Your task to perform on an android device: Open Google Chrome and click the shortcut for Amazon.com Image 0: 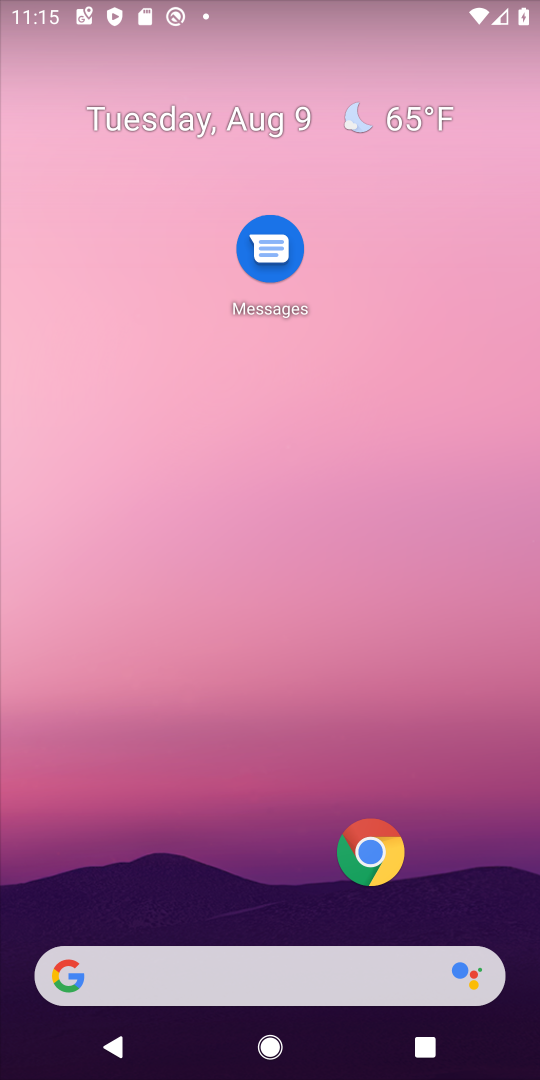
Step 0: click (387, 871)
Your task to perform on an android device: Open Google Chrome and click the shortcut for Amazon.com Image 1: 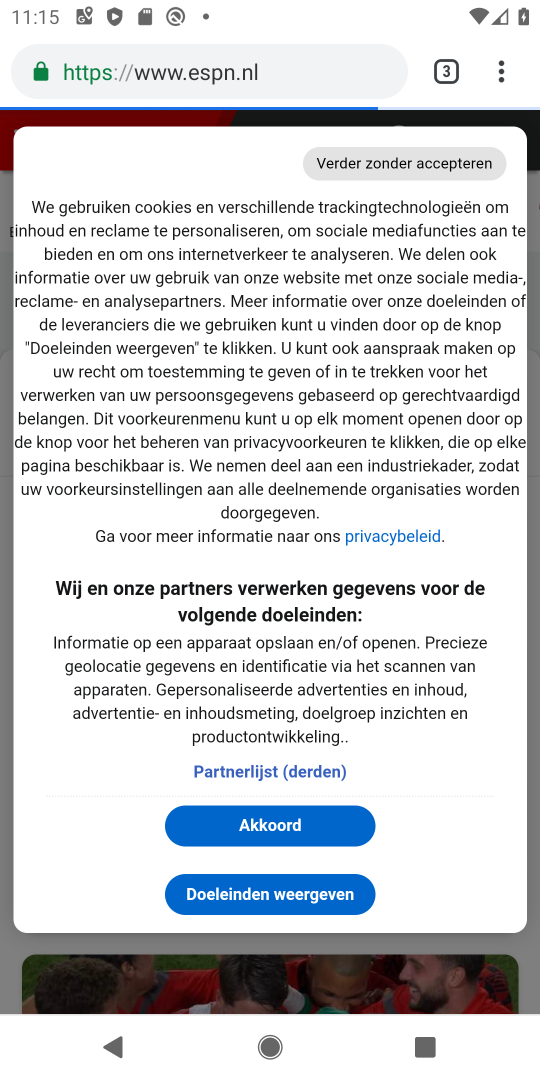
Step 1: click (442, 74)
Your task to perform on an android device: Open Google Chrome and click the shortcut for Amazon.com Image 2: 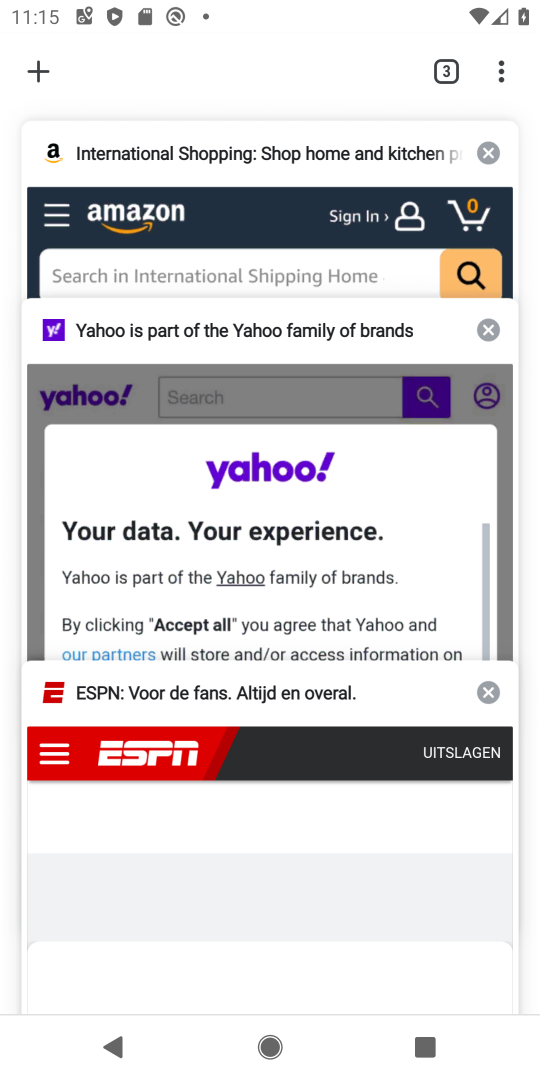
Step 2: click (53, 71)
Your task to perform on an android device: Open Google Chrome and click the shortcut for Amazon.com Image 3: 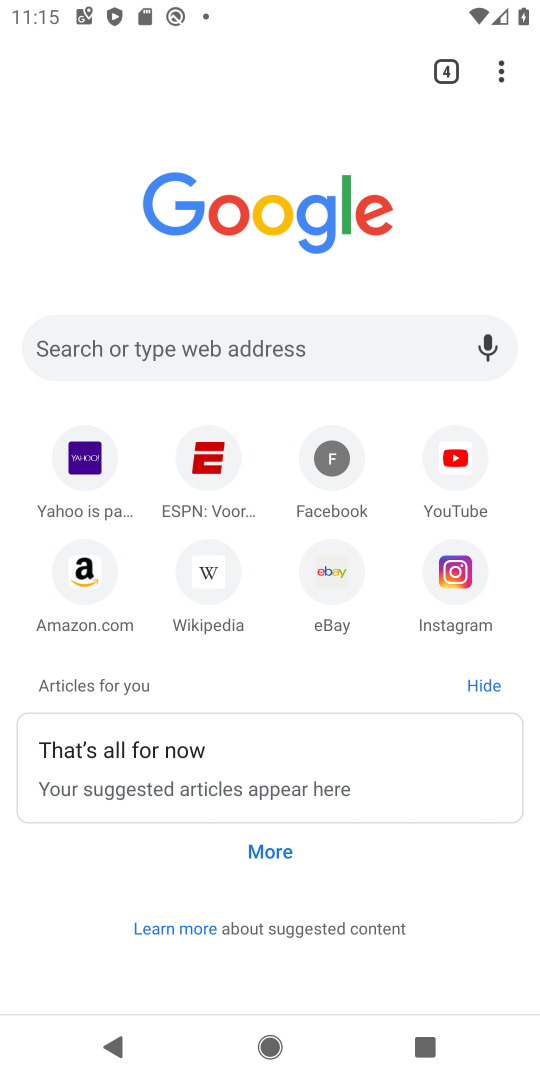
Step 3: click (107, 572)
Your task to perform on an android device: Open Google Chrome and click the shortcut for Amazon.com Image 4: 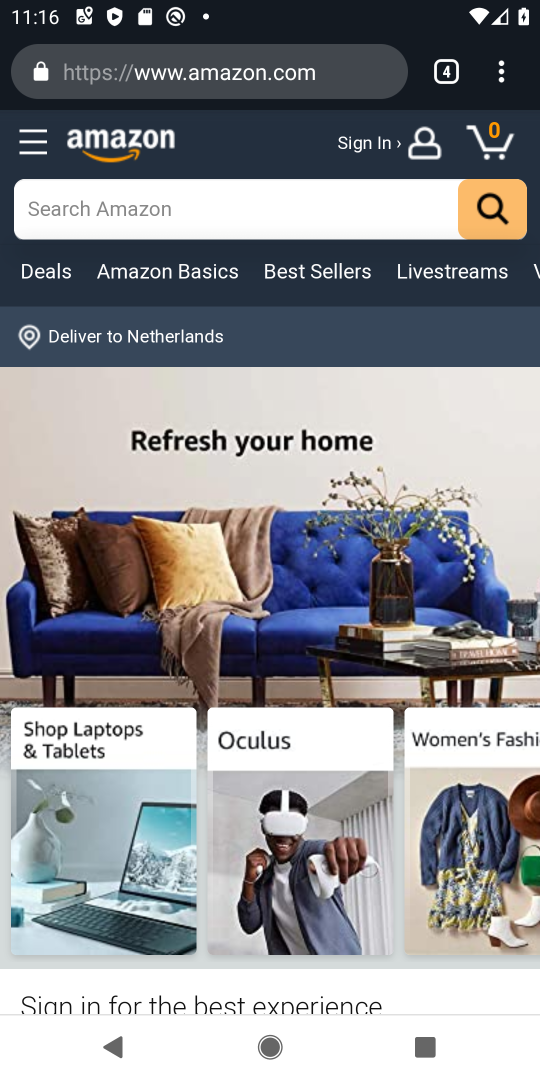
Step 4: task complete